Your task to perform on an android device: toggle show notifications on the lock screen Image 0: 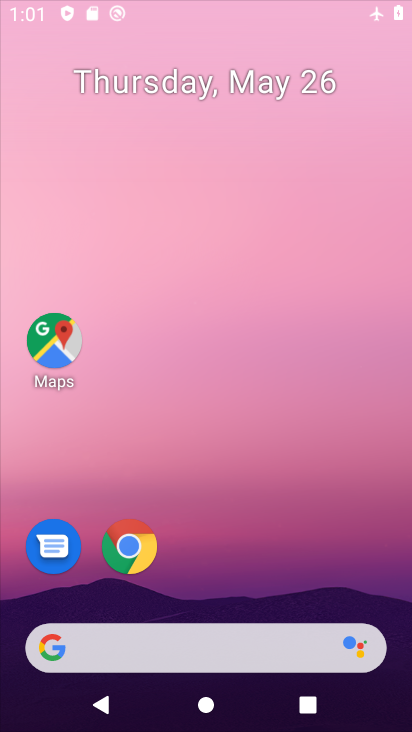
Step 0: click (242, 56)
Your task to perform on an android device: toggle show notifications on the lock screen Image 1: 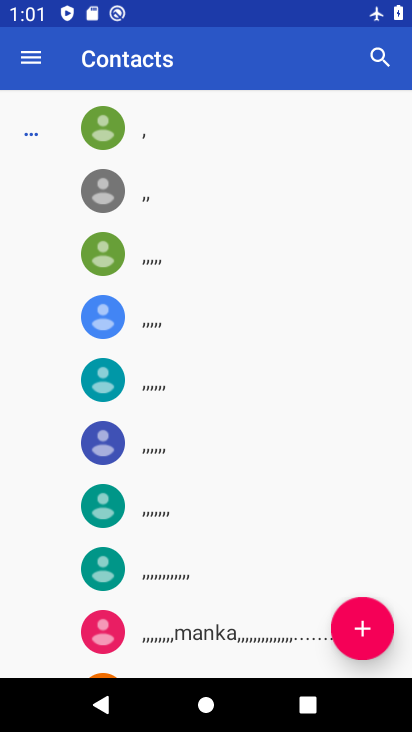
Step 1: press home button
Your task to perform on an android device: toggle show notifications on the lock screen Image 2: 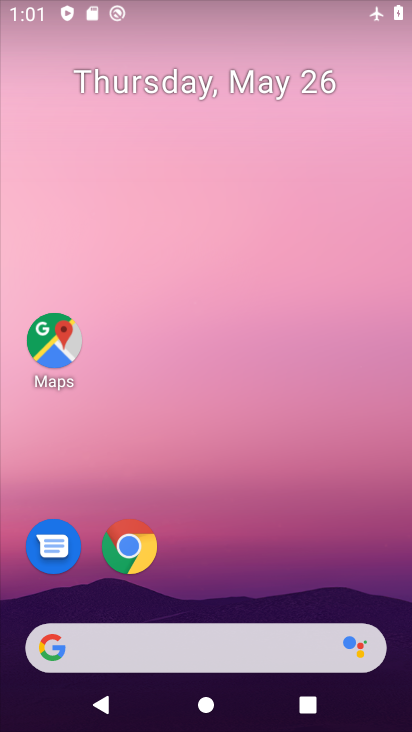
Step 2: drag from (269, 235) to (203, 26)
Your task to perform on an android device: toggle show notifications on the lock screen Image 3: 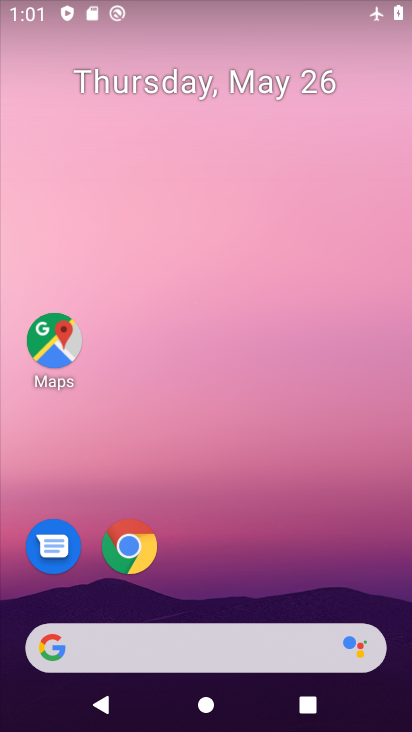
Step 3: drag from (279, 433) to (257, 25)
Your task to perform on an android device: toggle show notifications on the lock screen Image 4: 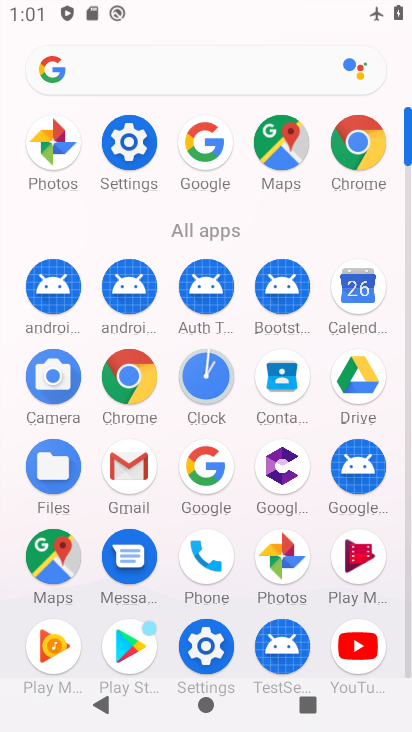
Step 4: click (128, 125)
Your task to perform on an android device: toggle show notifications on the lock screen Image 5: 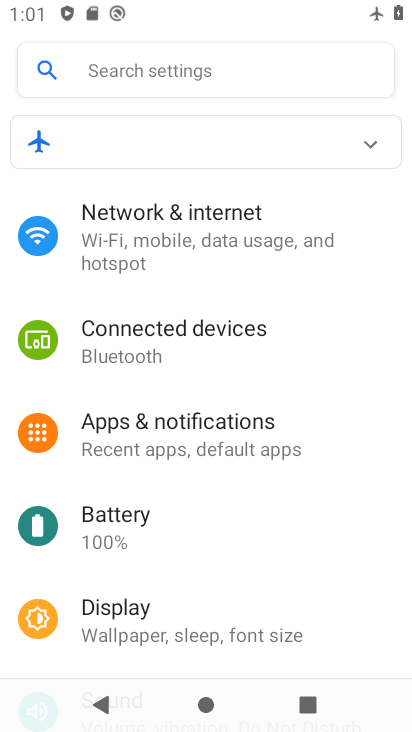
Step 5: click (188, 436)
Your task to perform on an android device: toggle show notifications on the lock screen Image 6: 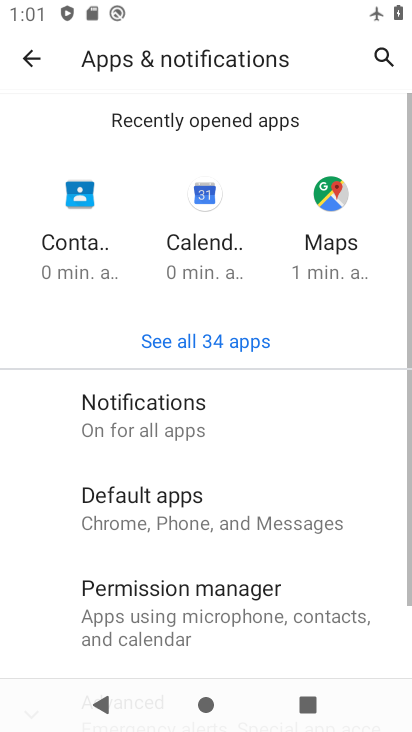
Step 6: click (197, 432)
Your task to perform on an android device: toggle show notifications on the lock screen Image 7: 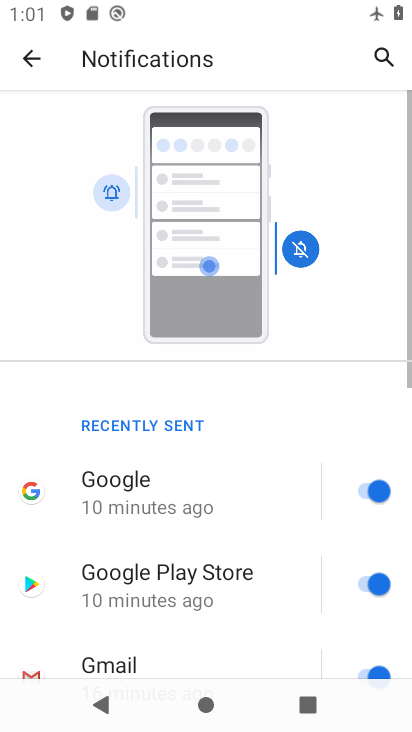
Step 7: drag from (256, 614) to (249, 112)
Your task to perform on an android device: toggle show notifications on the lock screen Image 8: 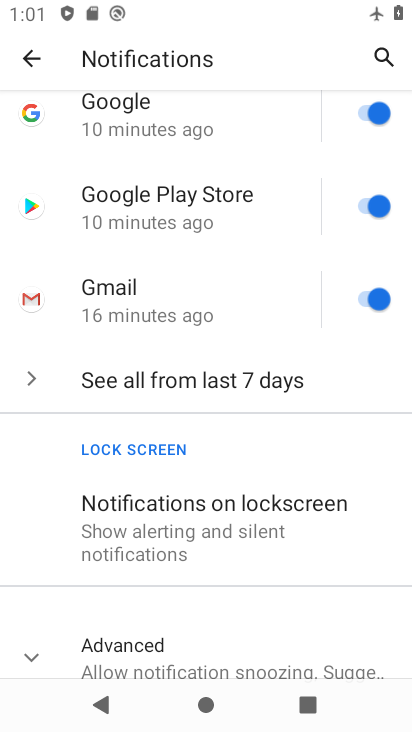
Step 8: click (212, 532)
Your task to perform on an android device: toggle show notifications on the lock screen Image 9: 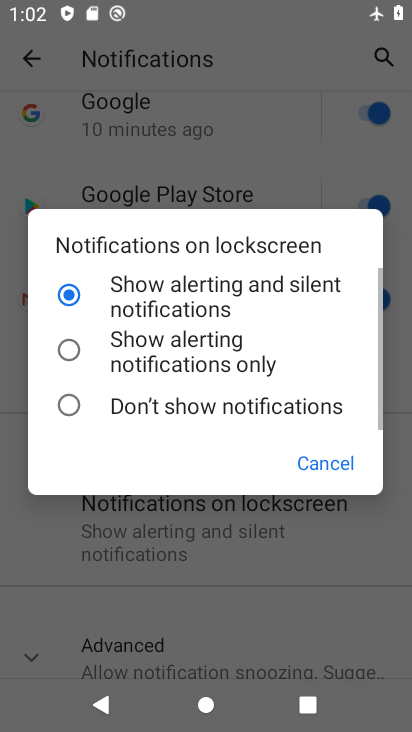
Step 9: click (174, 406)
Your task to perform on an android device: toggle show notifications on the lock screen Image 10: 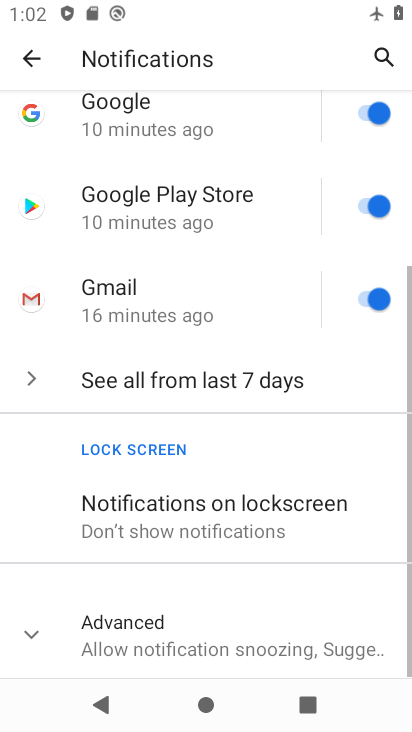
Step 10: task complete